Your task to perform on an android device: Turn on the flashlight Image 0: 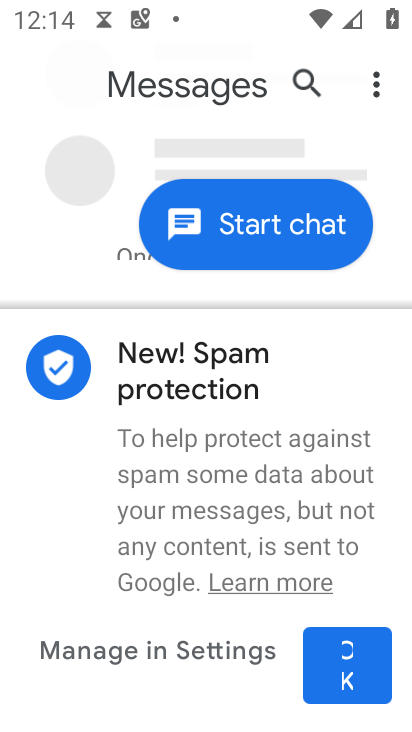
Step 0: press home button
Your task to perform on an android device: Turn on the flashlight Image 1: 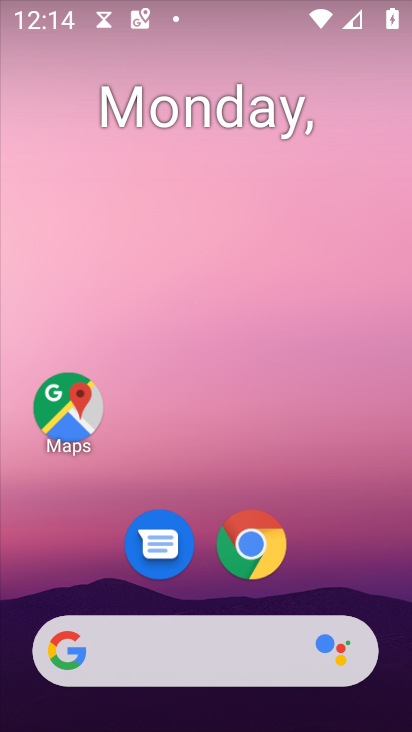
Step 1: drag from (310, 581) to (312, 295)
Your task to perform on an android device: Turn on the flashlight Image 2: 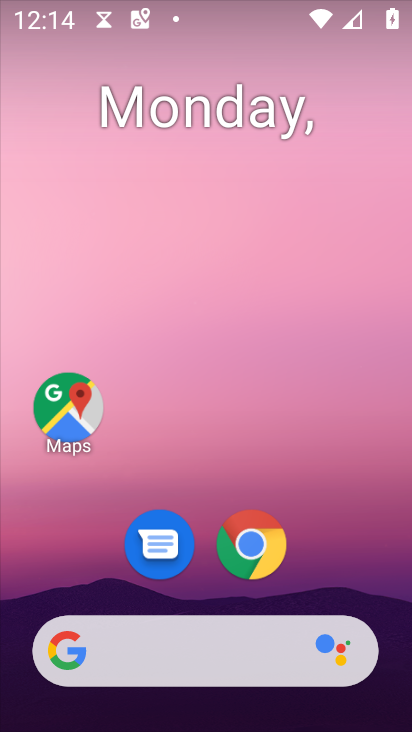
Step 2: drag from (338, 511) to (354, 362)
Your task to perform on an android device: Turn on the flashlight Image 3: 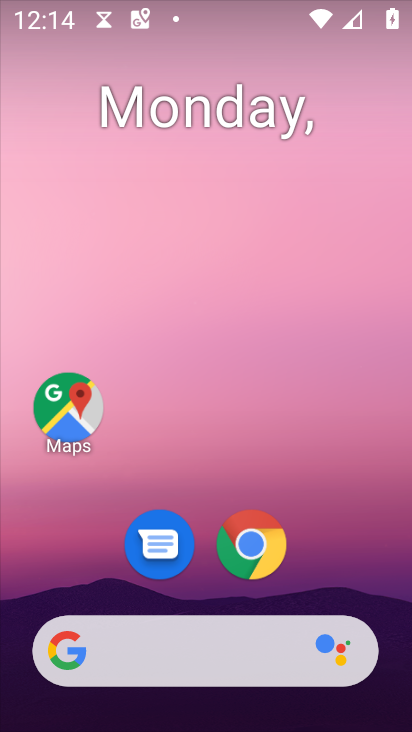
Step 3: drag from (315, 566) to (318, 225)
Your task to perform on an android device: Turn on the flashlight Image 4: 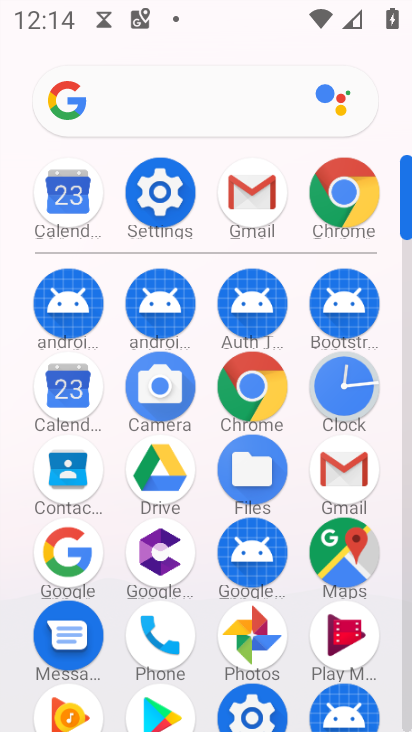
Step 4: click (146, 195)
Your task to perform on an android device: Turn on the flashlight Image 5: 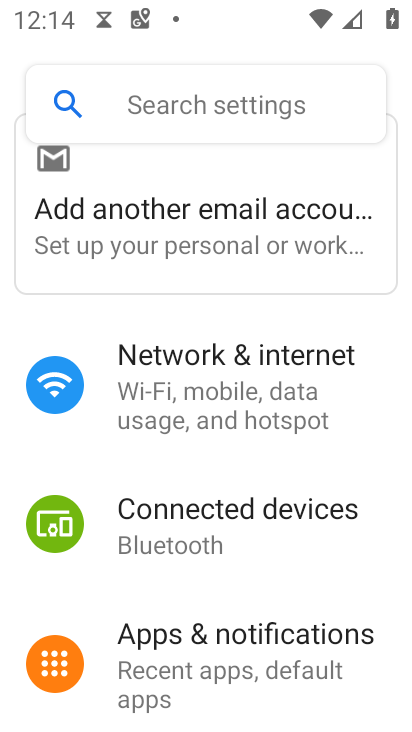
Step 5: task complete